Your task to perform on an android device: Set the phone to "Do not disturb". Image 0: 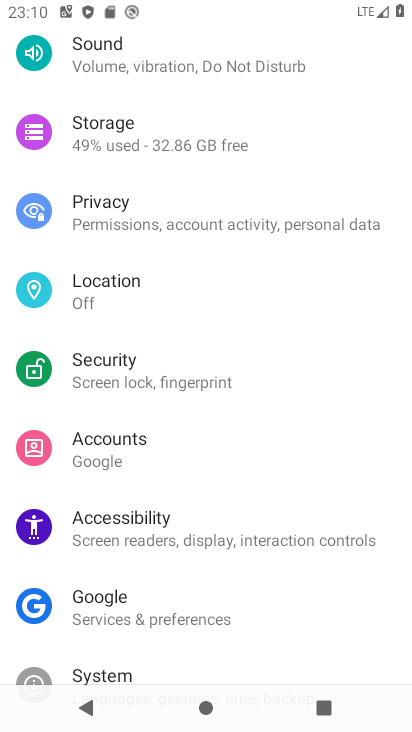
Step 0: press back button
Your task to perform on an android device: Set the phone to "Do not disturb". Image 1: 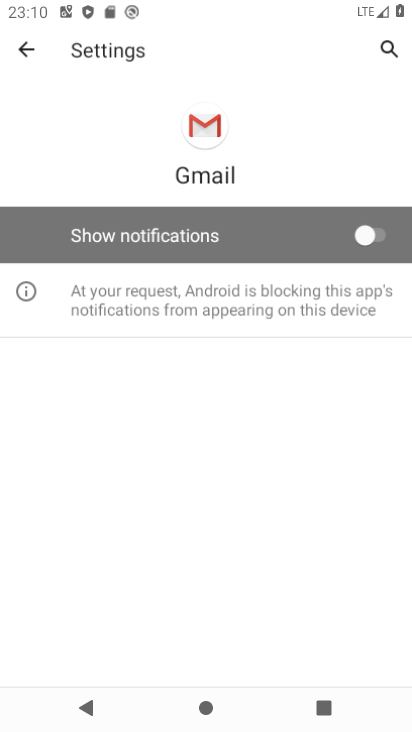
Step 1: drag from (161, 7) to (158, 564)
Your task to perform on an android device: Set the phone to "Do not disturb". Image 2: 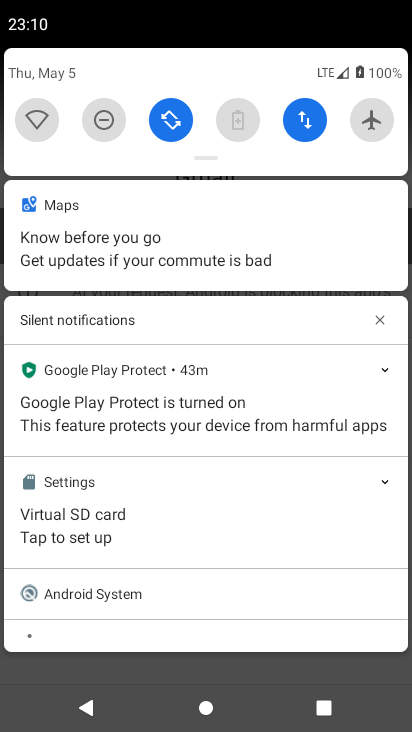
Step 2: click (101, 125)
Your task to perform on an android device: Set the phone to "Do not disturb". Image 3: 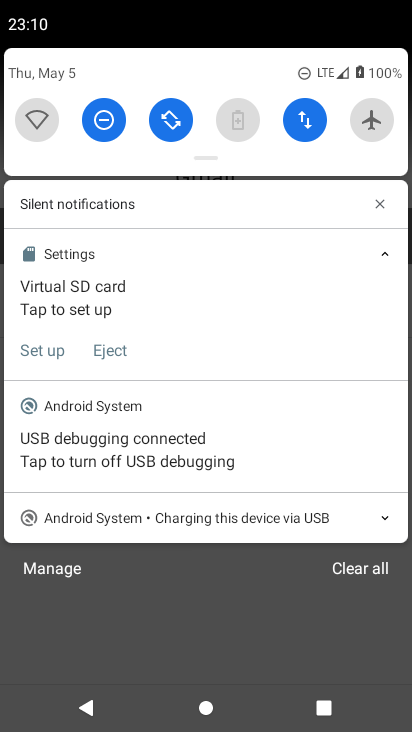
Step 3: task complete